Your task to perform on an android device: toggle location history Image 0: 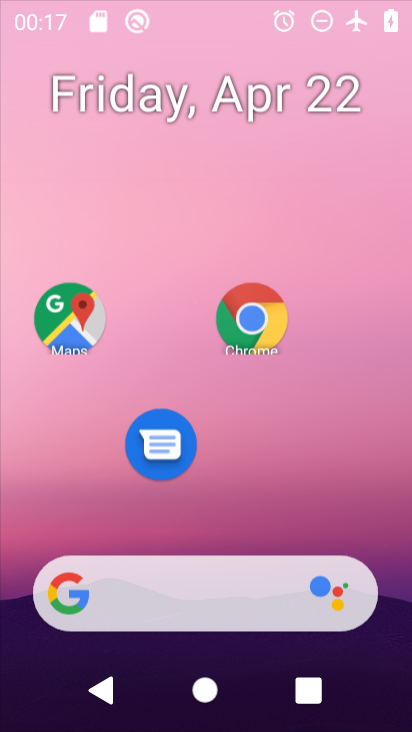
Step 0: click (274, 132)
Your task to perform on an android device: toggle location history Image 1: 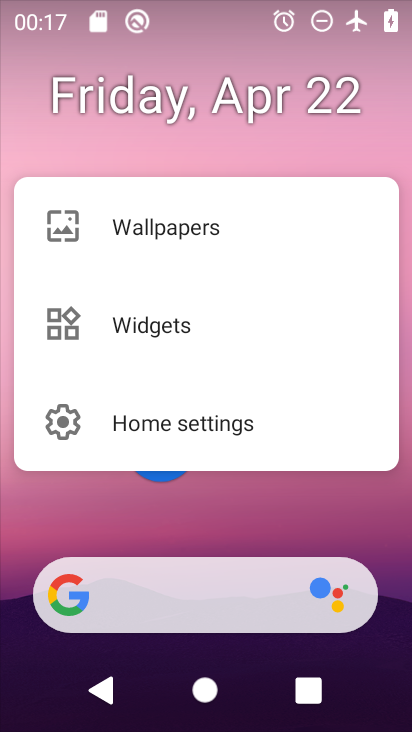
Step 1: click (252, 519)
Your task to perform on an android device: toggle location history Image 2: 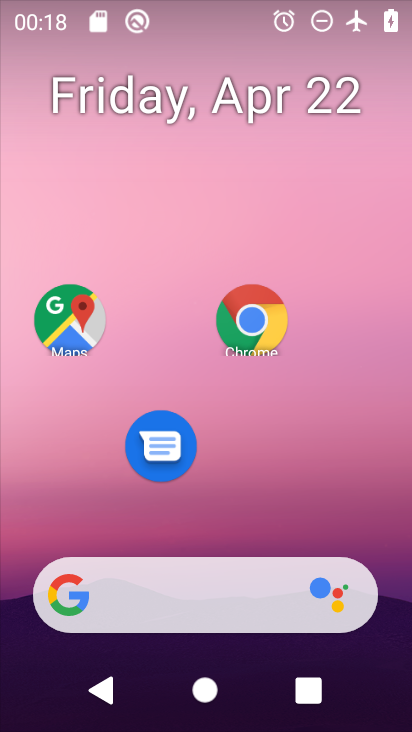
Step 2: drag from (230, 500) to (190, 88)
Your task to perform on an android device: toggle location history Image 3: 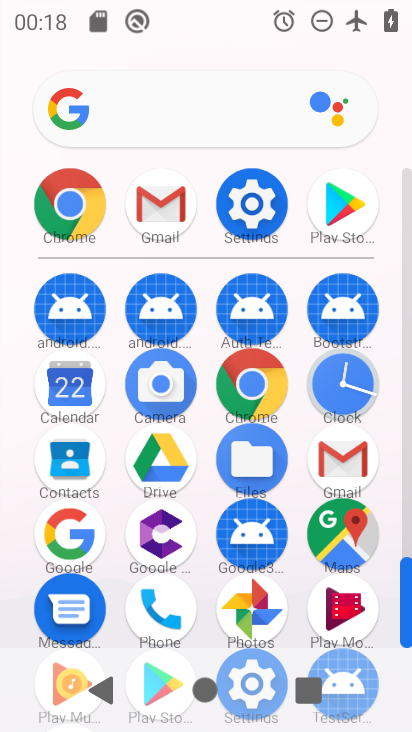
Step 3: drag from (198, 608) to (212, 164)
Your task to perform on an android device: toggle location history Image 4: 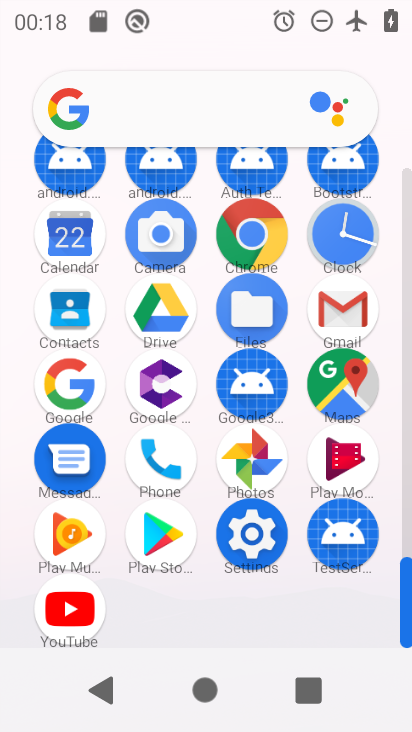
Step 4: click (248, 545)
Your task to perform on an android device: toggle location history Image 5: 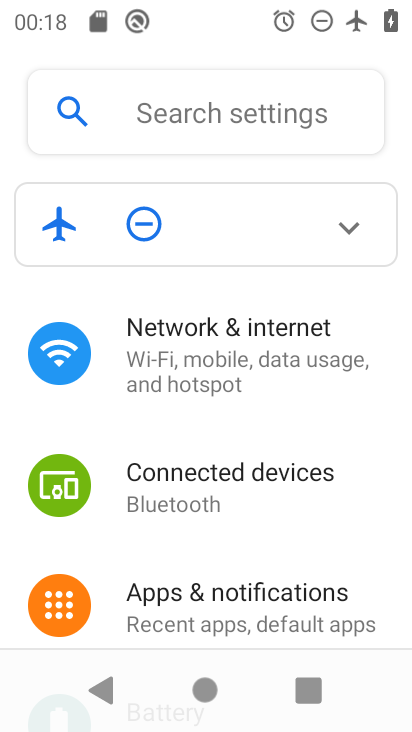
Step 5: drag from (240, 500) to (269, 169)
Your task to perform on an android device: toggle location history Image 6: 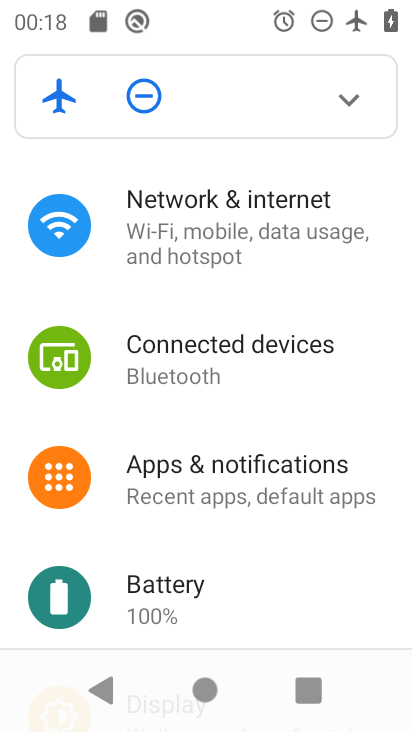
Step 6: drag from (254, 493) to (227, 299)
Your task to perform on an android device: toggle location history Image 7: 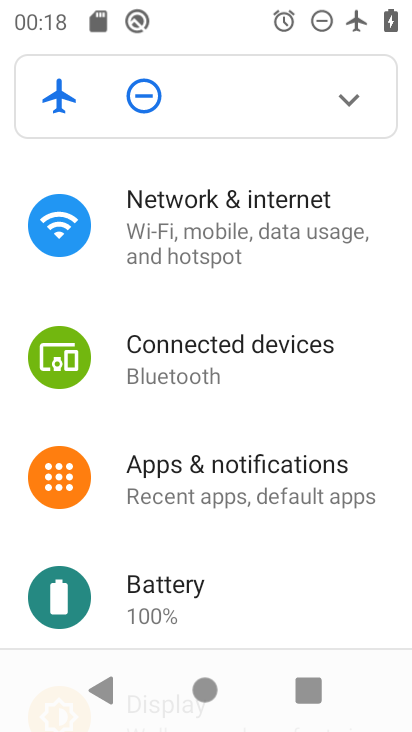
Step 7: drag from (234, 558) to (254, 177)
Your task to perform on an android device: toggle location history Image 8: 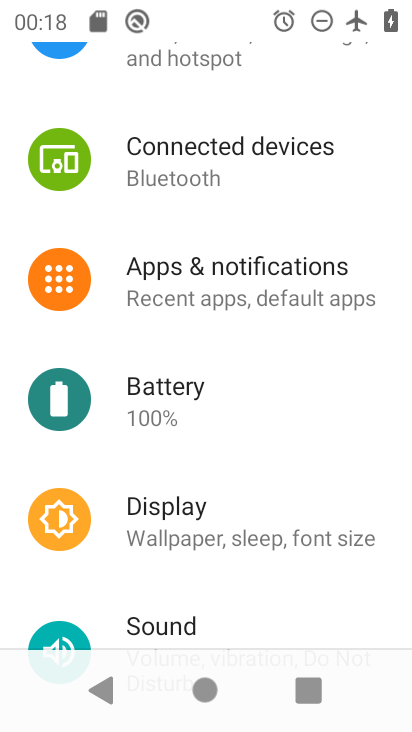
Step 8: drag from (219, 605) to (260, 207)
Your task to perform on an android device: toggle location history Image 9: 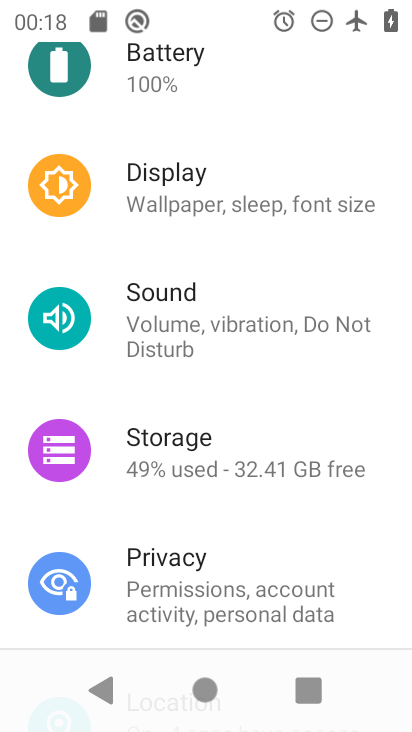
Step 9: drag from (234, 604) to (289, 225)
Your task to perform on an android device: toggle location history Image 10: 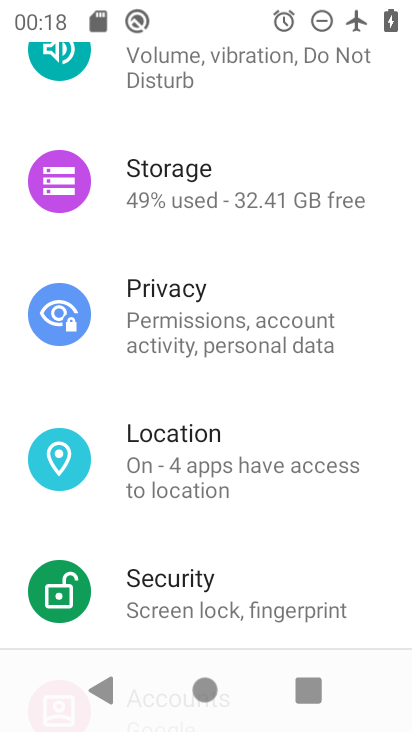
Step 10: click (215, 452)
Your task to perform on an android device: toggle location history Image 11: 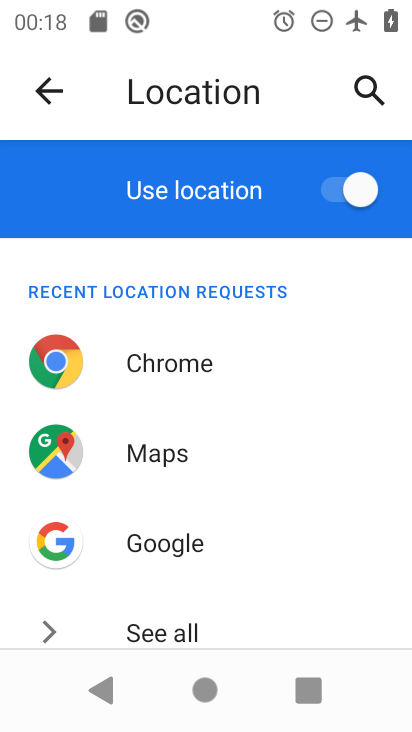
Step 11: drag from (249, 555) to (262, 118)
Your task to perform on an android device: toggle location history Image 12: 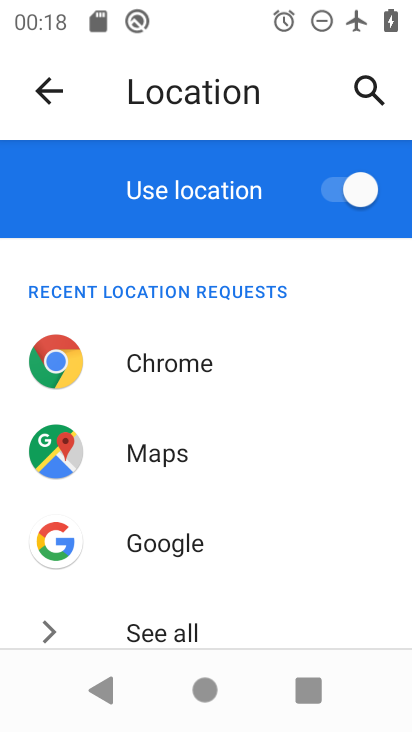
Step 12: drag from (247, 503) to (315, 125)
Your task to perform on an android device: toggle location history Image 13: 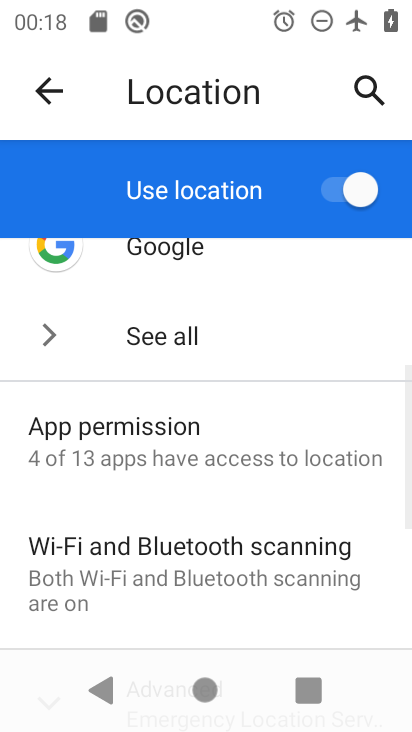
Step 13: drag from (236, 523) to (279, 307)
Your task to perform on an android device: toggle location history Image 14: 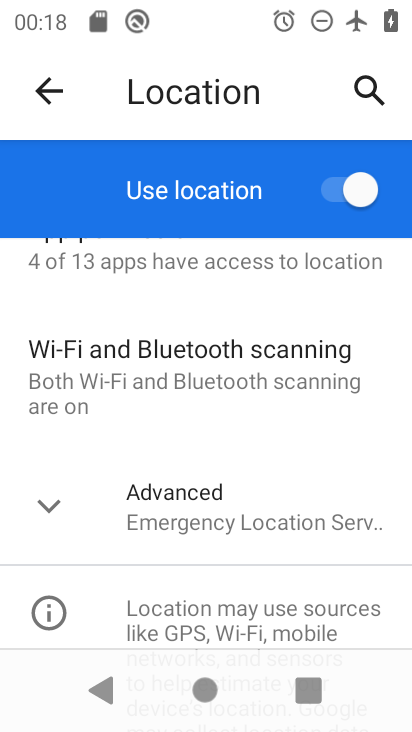
Step 14: drag from (204, 563) to (271, 268)
Your task to perform on an android device: toggle location history Image 15: 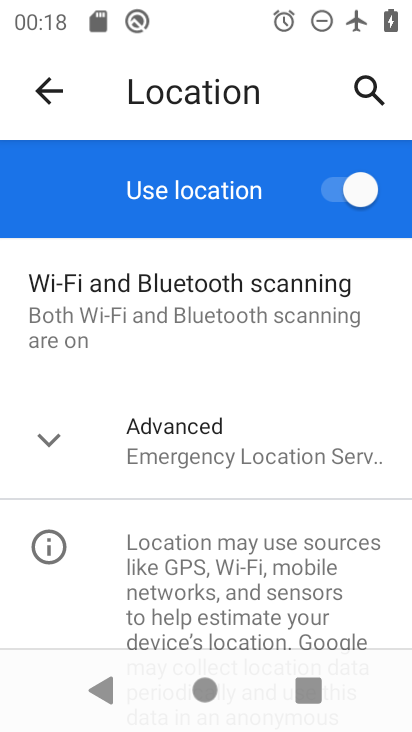
Step 15: click (191, 495)
Your task to perform on an android device: toggle location history Image 16: 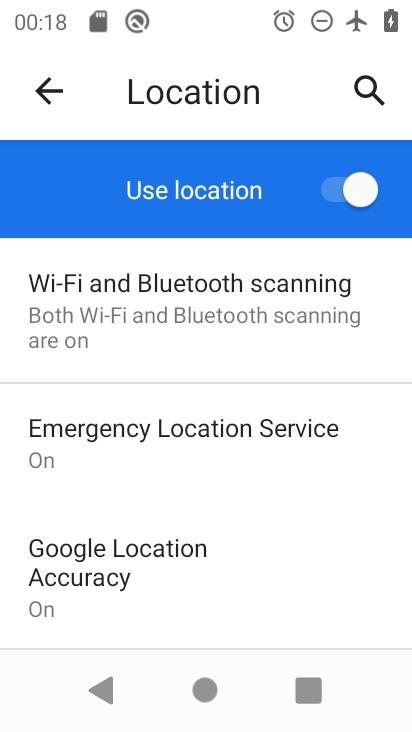
Step 16: drag from (199, 591) to (273, 204)
Your task to perform on an android device: toggle location history Image 17: 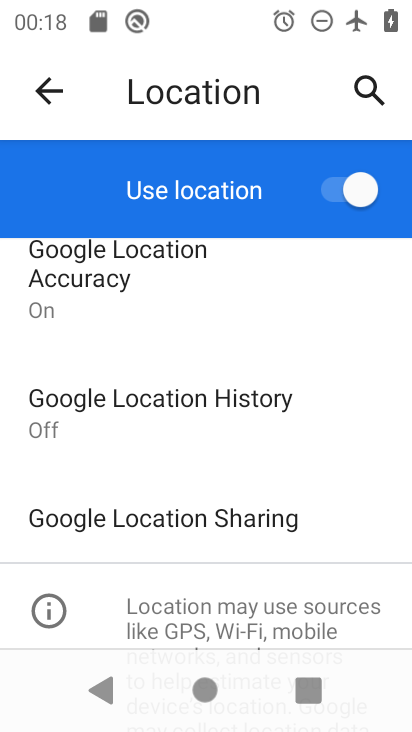
Step 17: click (214, 418)
Your task to perform on an android device: toggle location history Image 18: 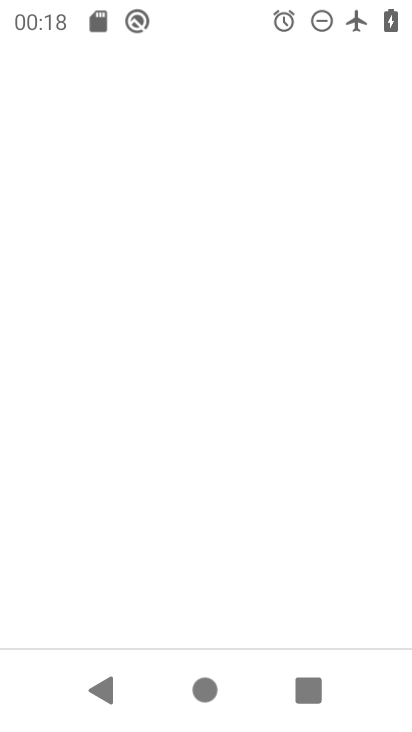
Step 18: drag from (220, 578) to (314, 112)
Your task to perform on an android device: toggle location history Image 19: 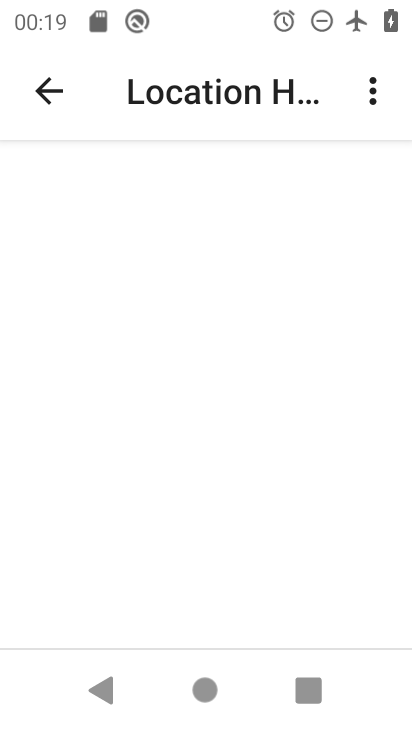
Step 19: drag from (275, 389) to (337, 10)
Your task to perform on an android device: toggle location history Image 20: 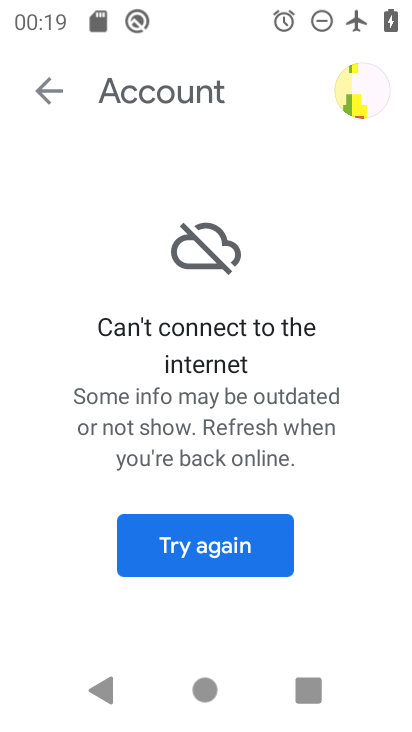
Step 20: drag from (254, 545) to (302, 177)
Your task to perform on an android device: toggle location history Image 21: 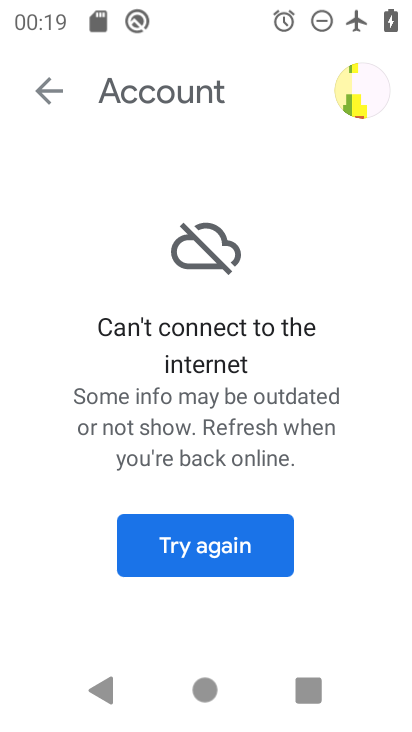
Step 21: click (207, 546)
Your task to perform on an android device: toggle location history Image 22: 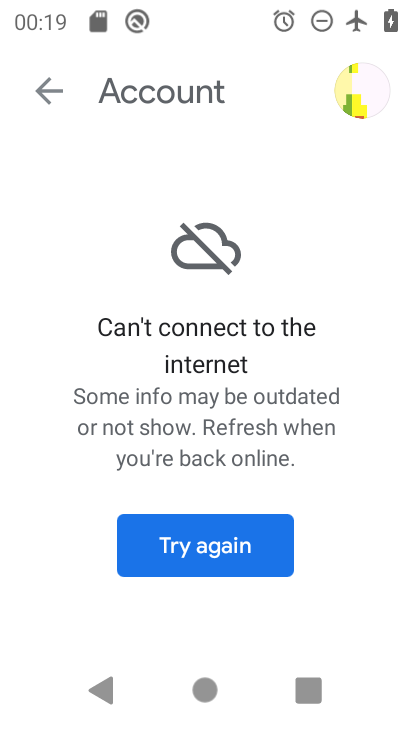
Step 22: task complete